Your task to perform on an android device: open app "Pandora - Music & Podcasts" (install if not already installed), go to login, and select forgot password Image 0: 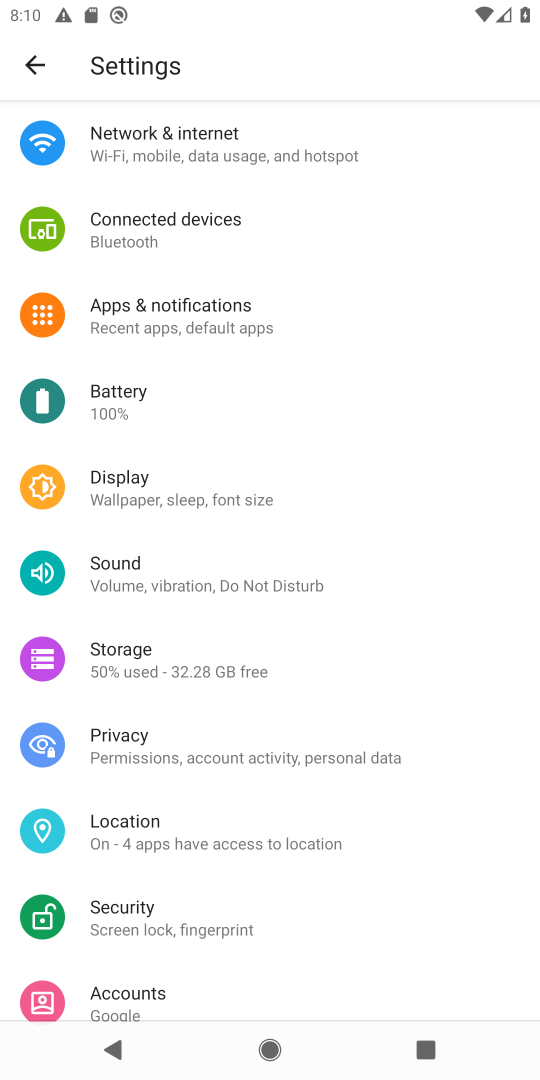
Step 0: press home button
Your task to perform on an android device: open app "Pandora - Music & Podcasts" (install if not already installed), go to login, and select forgot password Image 1: 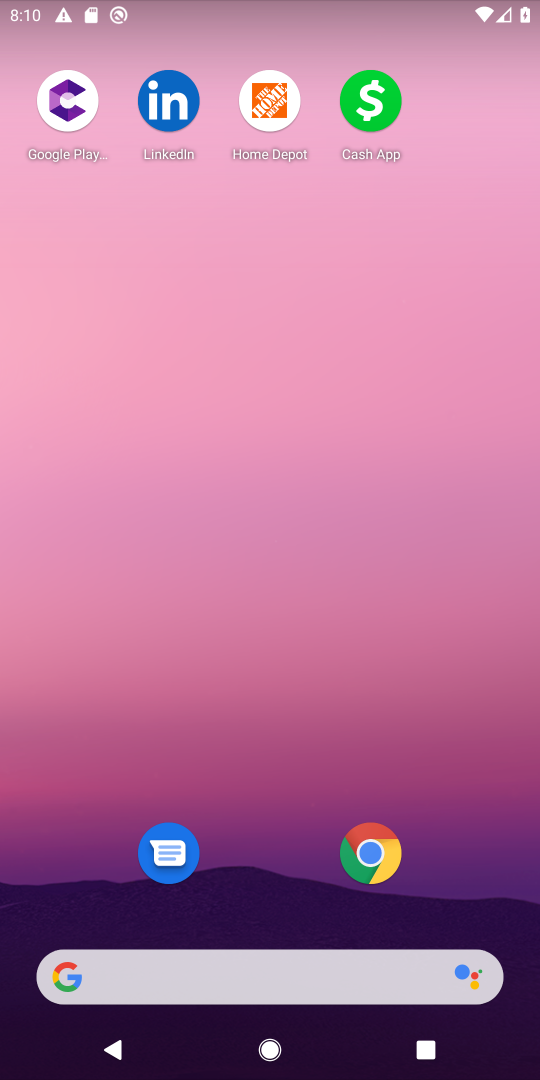
Step 1: drag from (250, 724) to (335, 168)
Your task to perform on an android device: open app "Pandora - Music & Podcasts" (install if not already installed), go to login, and select forgot password Image 2: 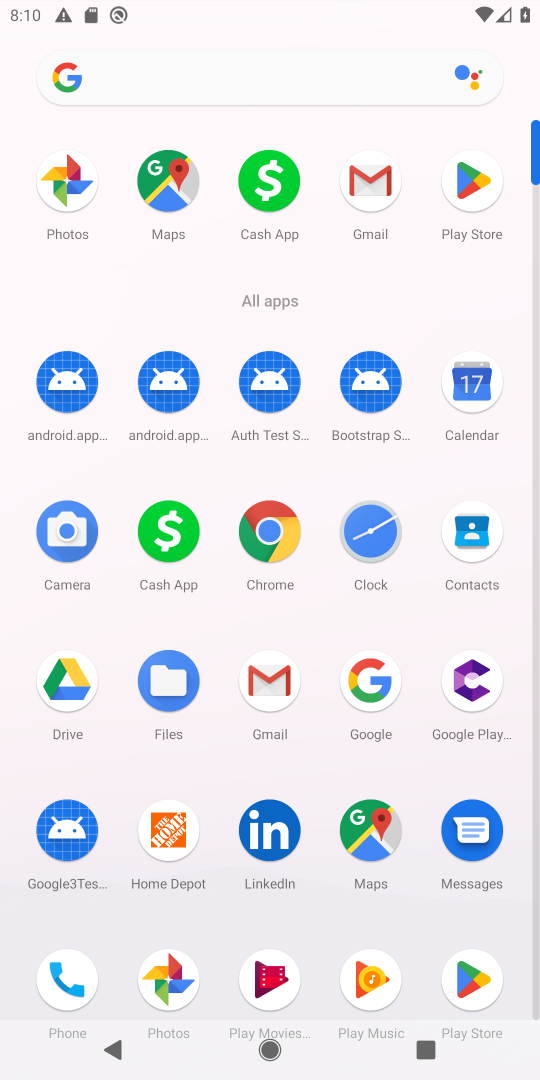
Step 2: click (461, 175)
Your task to perform on an android device: open app "Pandora - Music & Podcasts" (install if not already installed), go to login, and select forgot password Image 3: 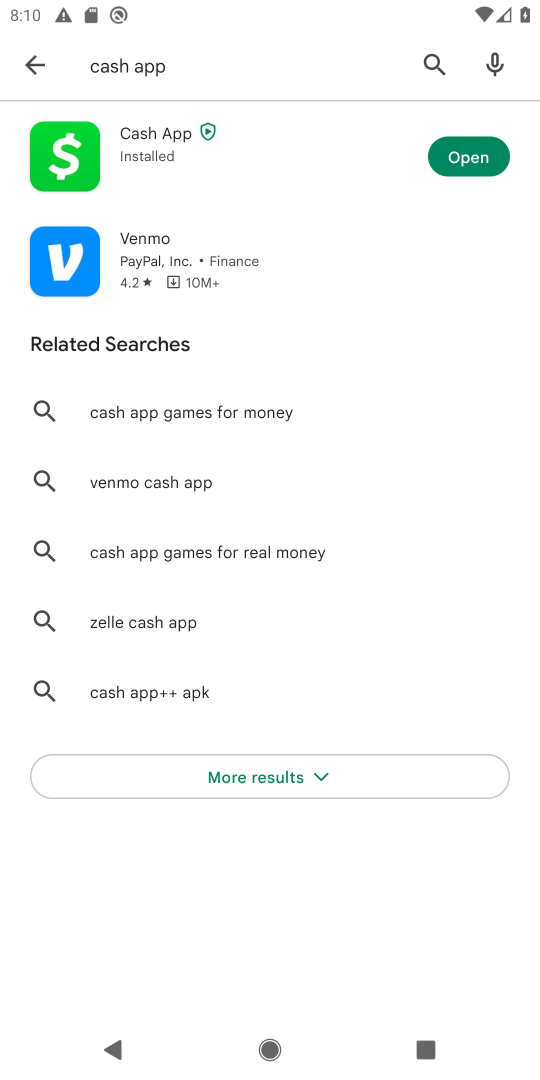
Step 3: click (431, 56)
Your task to perform on an android device: open app "Pandora - Music & Podcasts" (install if not already installed), go to login, and select forgot password Image 4: 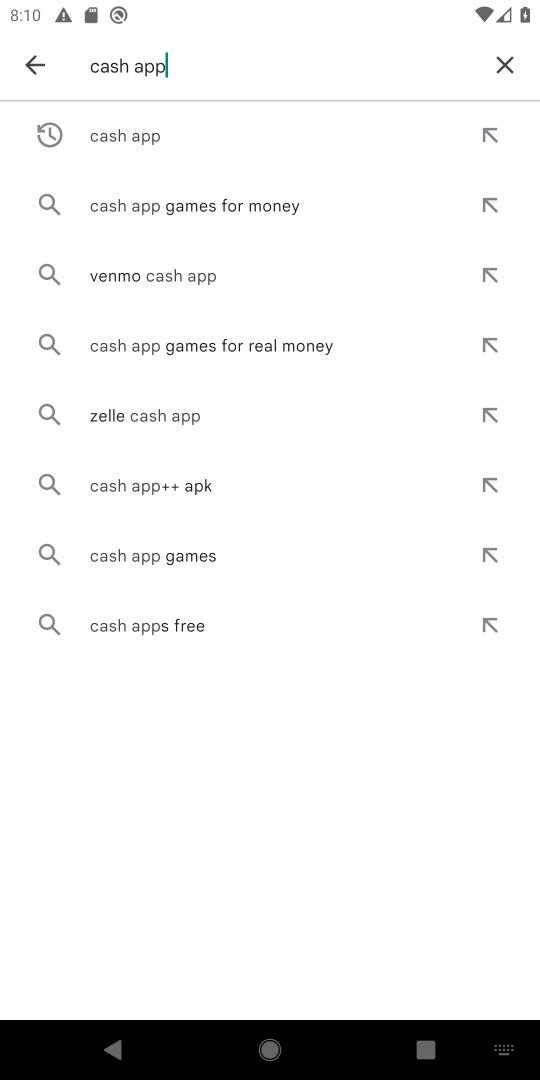
Step 4: click (510, 58)
Your task to perform on an android device: open app "Pandora - Music & Podcasts" (install if not already installed), go to login, and select forgot password Image 5: 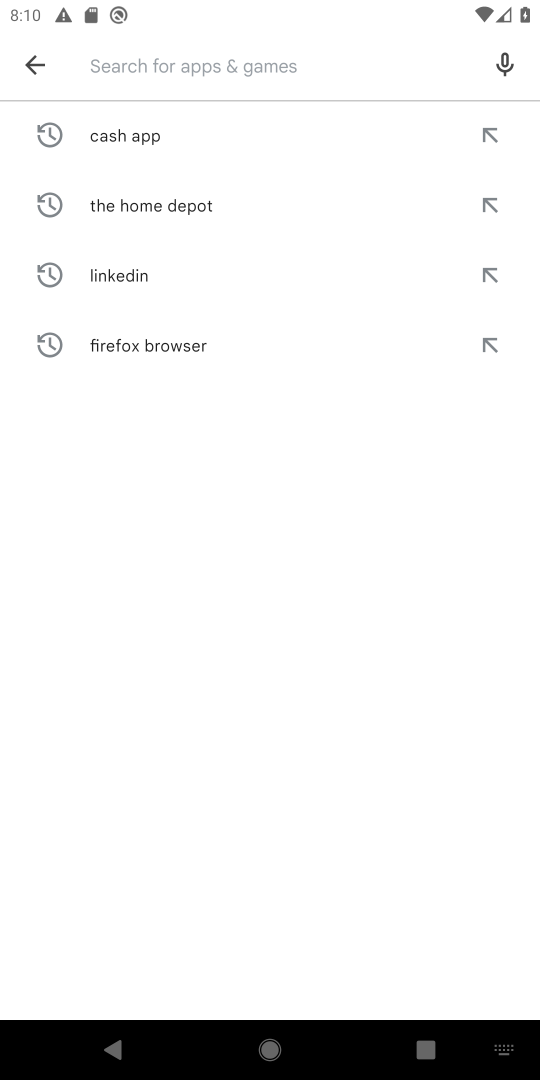
Step 5: type "Pandora - Music & Podcasts"
Your task to perform on an android device: open app "Pandora - Music & Podcasts" (install if not already installed), go to login, and select forgot password Image 6: 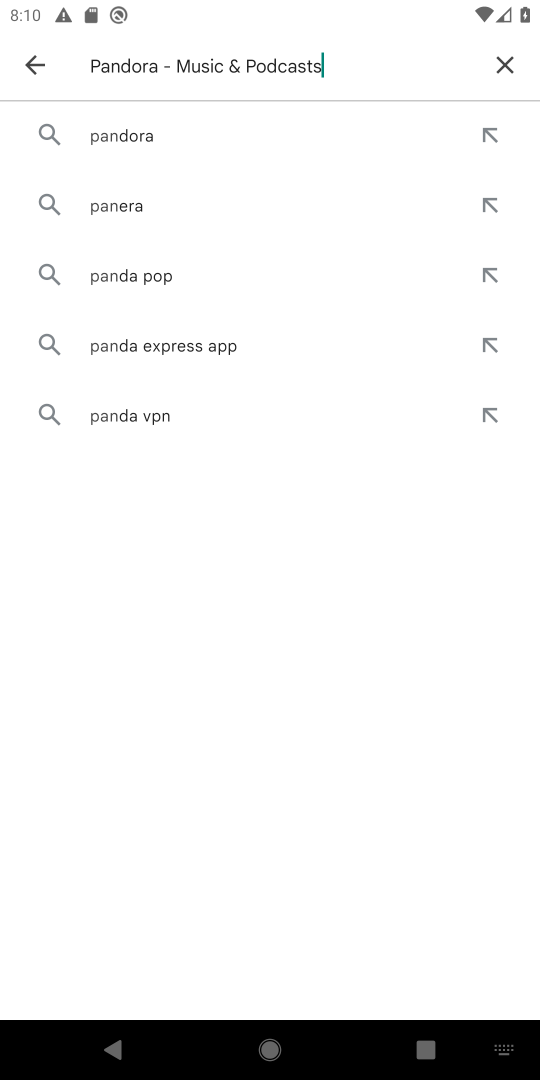
Step 6: type ""
Your task to perform on an android device: open app "Pandora - Music & Podcasts" (install if not already installed), go to login, and select forgot password Image 7: 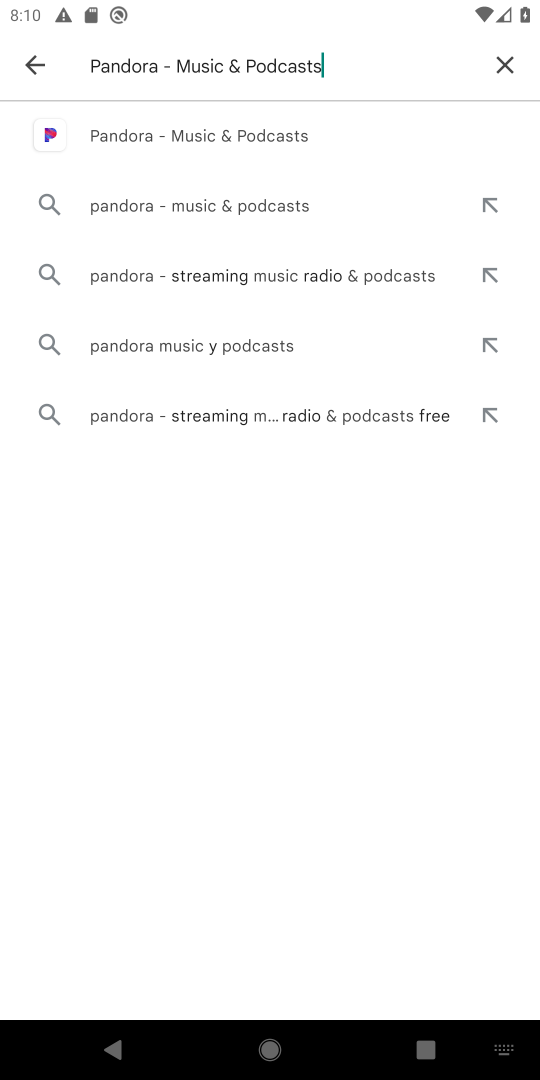
Step 7: click (108, 131)
Your task to perform on an android device: open app "Pandora - Music & Podcasts" (install if not already installed), go to login, and select forgot password Image 8: 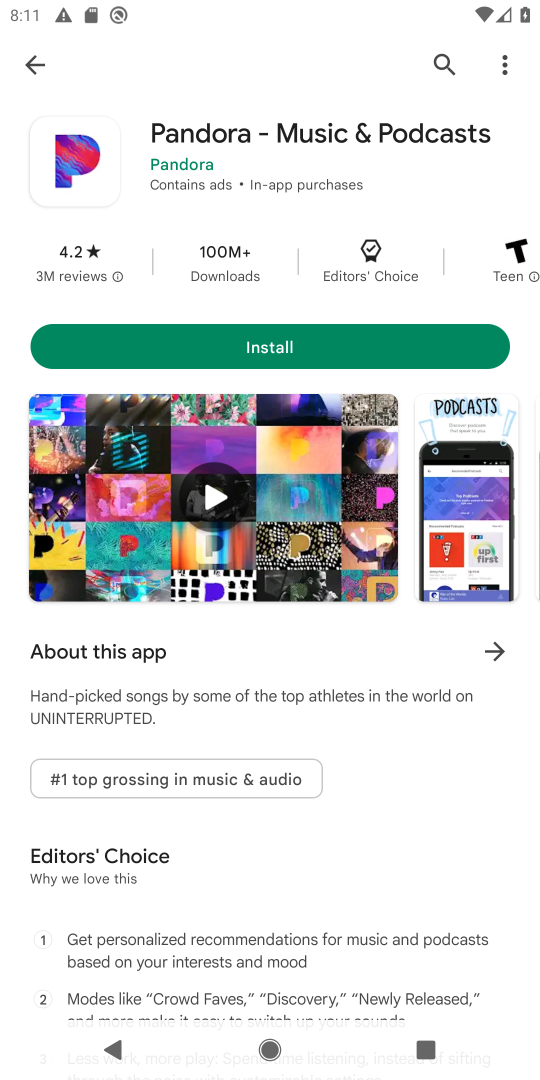
Step 8: click (364, 343)
Your task to perform on an android device: open app "Pandora - Music & Podcasts" (install if not already installed), go to login, and select forgot password Image 9: 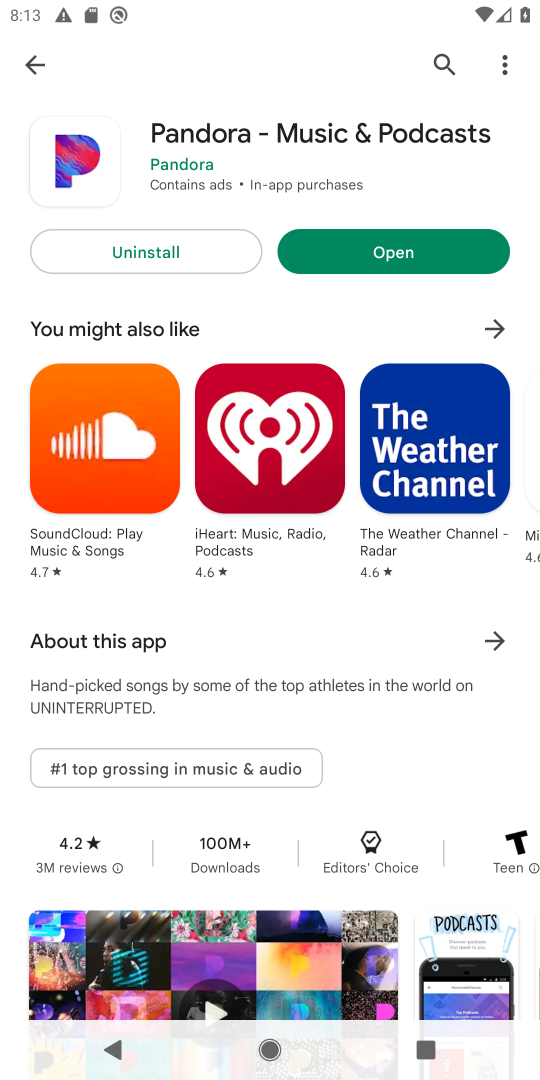
Step 9: click (396, 254)
Your task to perform on an android device: open app "Pandora - Music & Podcasts" (install if not already installed), go to login, and select forgot password Image 10: 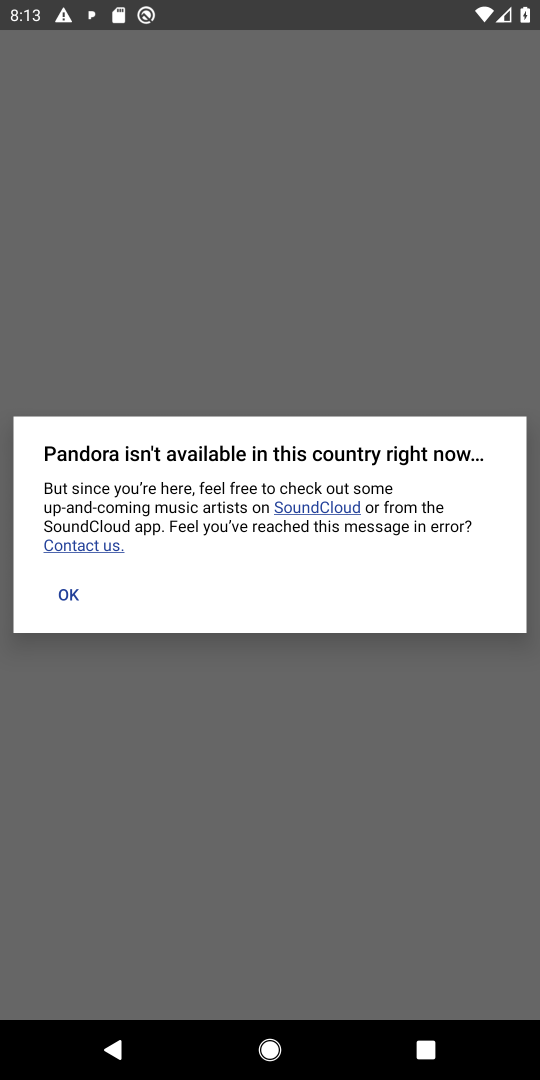
Step 10: click (67, 592)
Your task to perform on an android device: open app "Pandora - Music & Podcasts" (install if not already installed), go to login, and select forgot password Image 11: 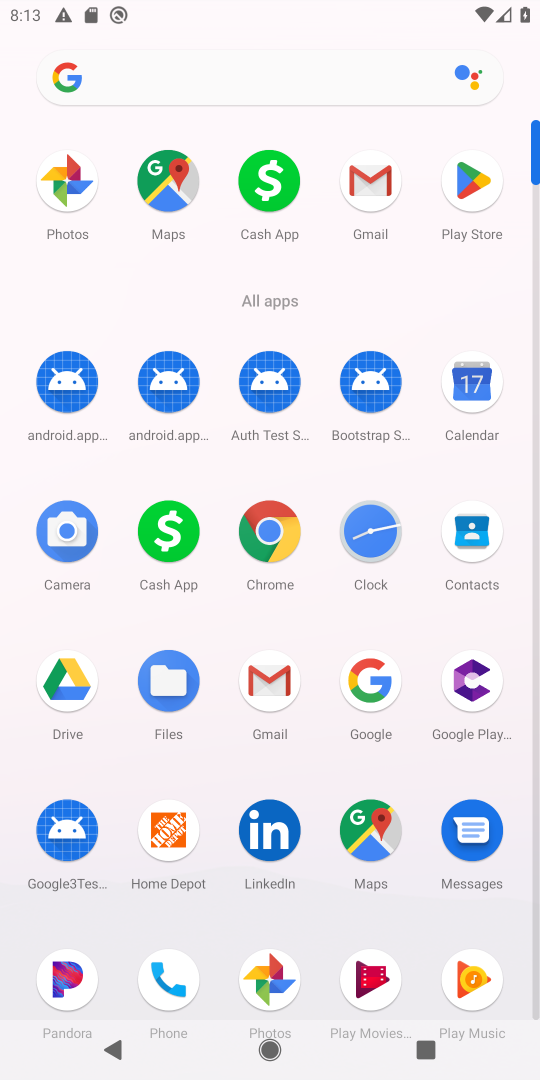
Step 11: task complete